Your task to perform on an android device: Open calendar and show me the second week of next month Image 0: 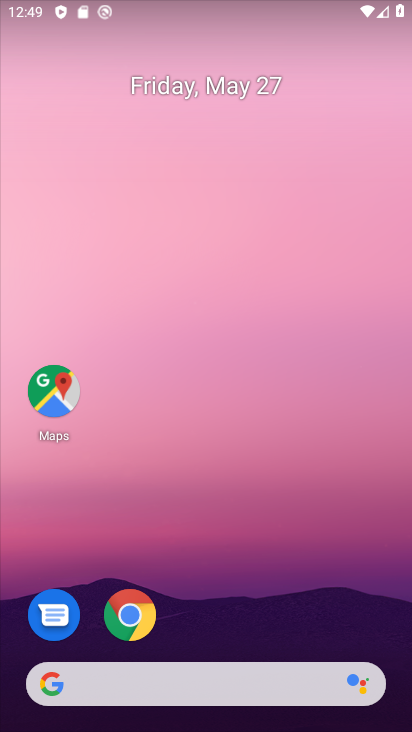
Step 0: drag from (235, 617) to (330, 190)
Your task to perform on an android device: Open calendar and show me the second week of next month Image 1: 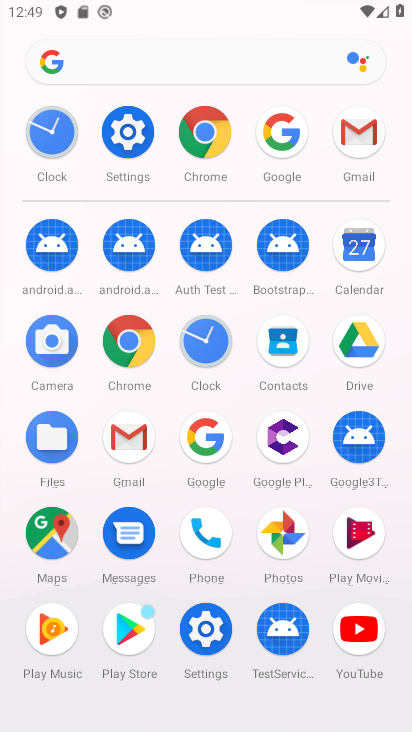
Step 1: click (363, 267)
Your task to perform on an android device: Open calendar and show me the second week of next month Image 2: 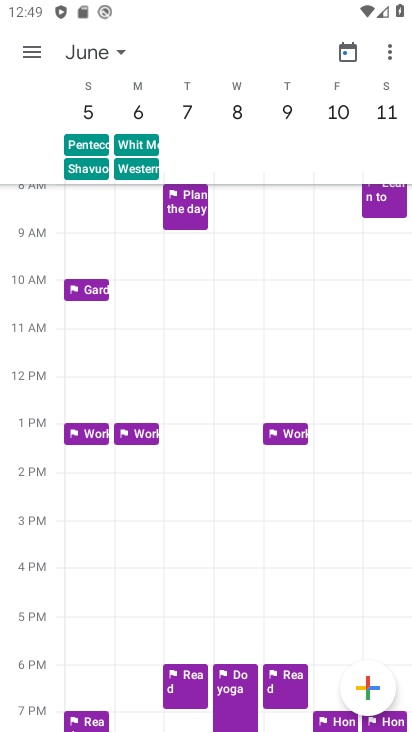
Step 2: task complete